Your task to perform on an android device: snooze an email in the gmail app Image 0: 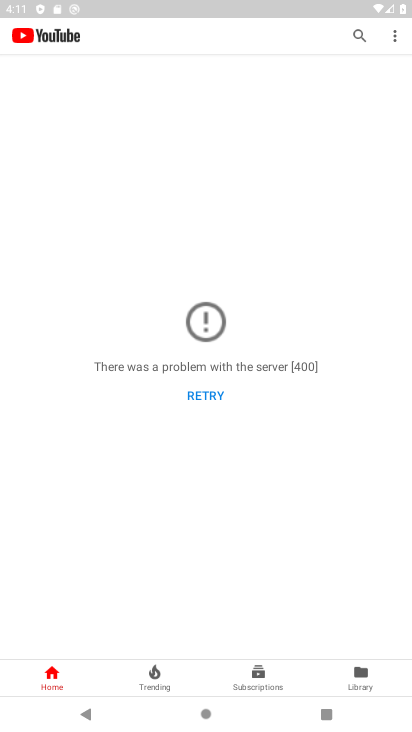
Step 0: press back button
Your task to perform on an android device: snooze an email in the gmail app Image 1: 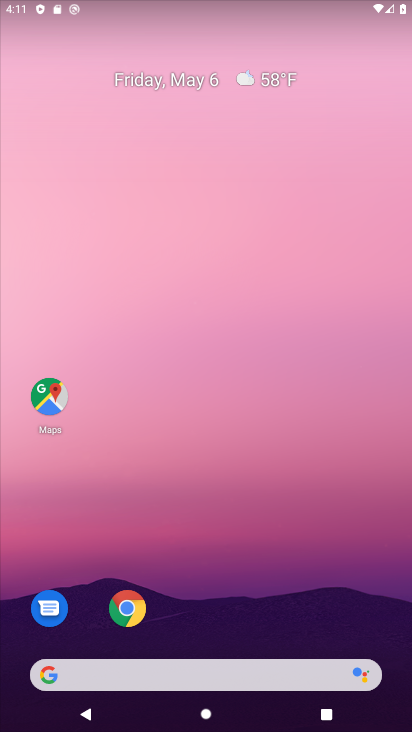
Step 1: drag from (189, 610) to (300, 58)
Your task to perform on an android device: snooze an email in the gmail app Image 2: 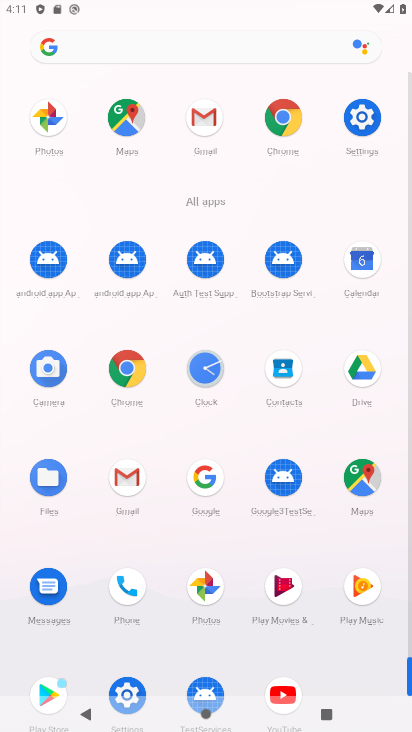
Step 2: click (126, 502)
Your task to perform on an android device: snooze an email in the gmail app Image 3: 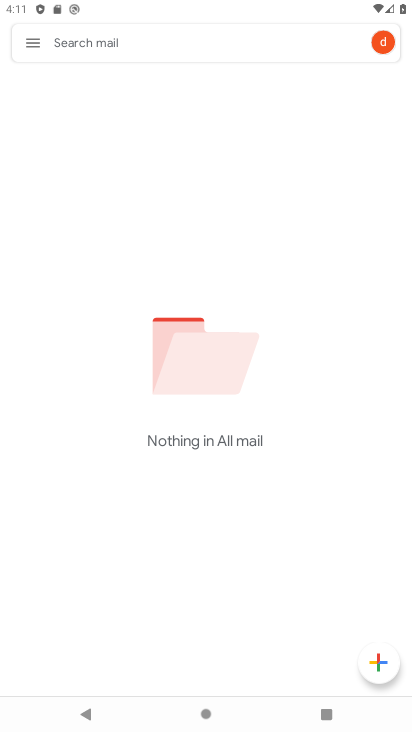
Step 3: click (46, 34)
Your task to perform on an android device: snooze an email in the gmail app Image 4: 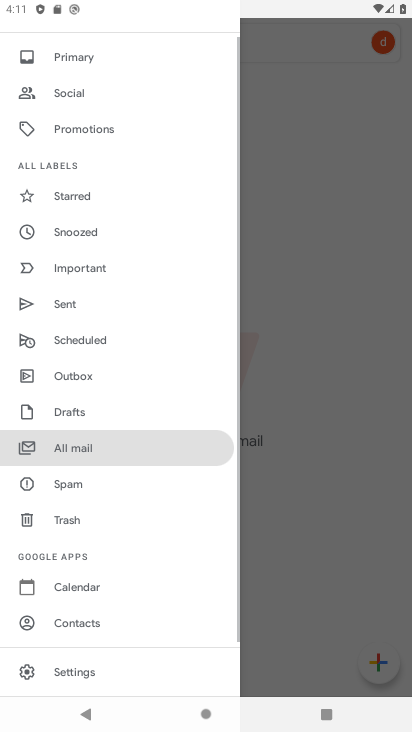
Step 4: click (114, 449)
Your task to perform on an android device: snooze an email in the gmail app Image 5: 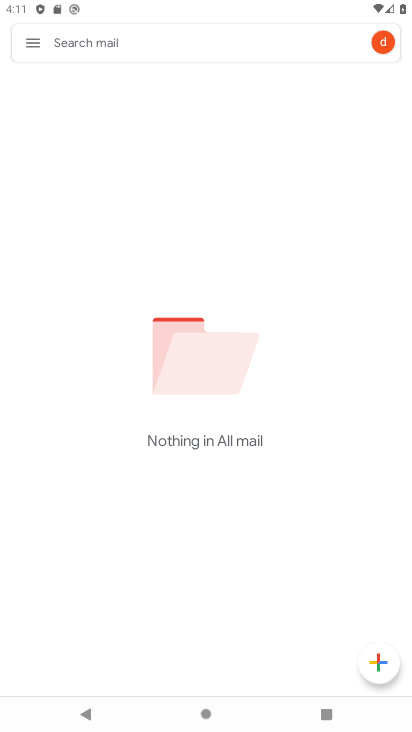
Step 5: task complete